Your task to perform on an android device: Go to Android settings Image 0: 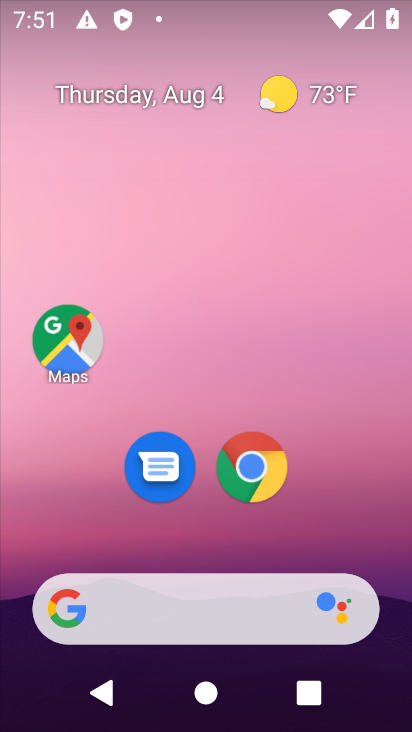
Step 0: drag from (300, 528) to (338, 38)
Your task to perform on an android device: Go to Android settings Image 1: 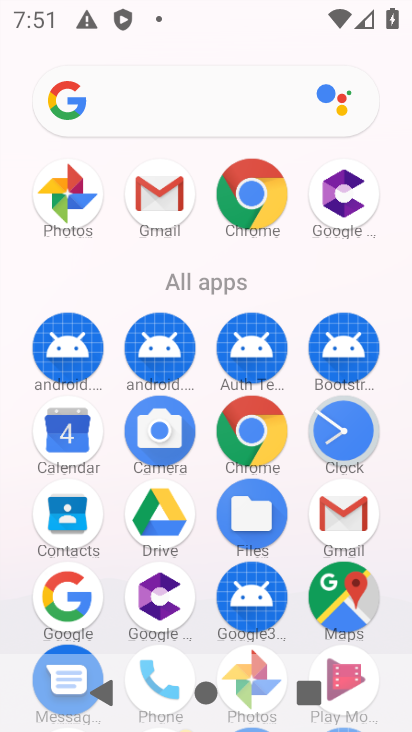
Step 1: drag from (190, 487) to (126, 56)
Your task to perform on an android device: Go to Android settings Image 2: 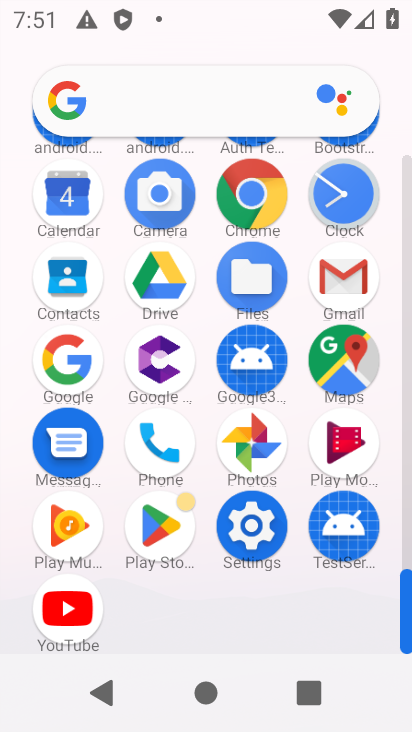
Step 2: click (250, 533)
Your task to perform on an android device: Go to Android settings Image 3: 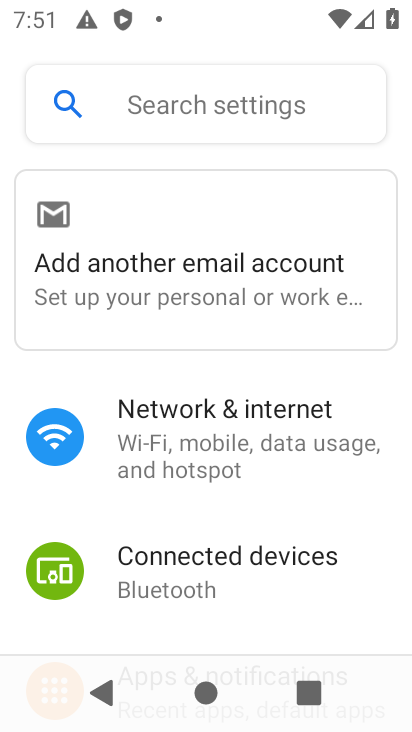
Step 3: drag from (239, 594) to (260, 153)
Your task to perform on an android device: Go to Android settings Image 4: 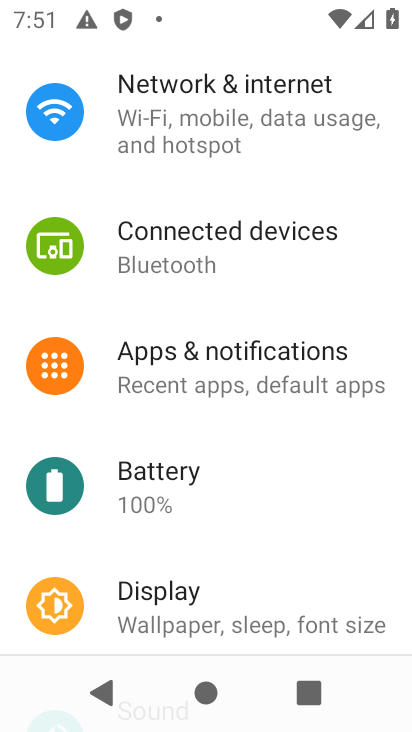
Step 4: drag from (242, 479) to (263, 58)
Your task to perform on an android device: Go to Android settings Image 5: 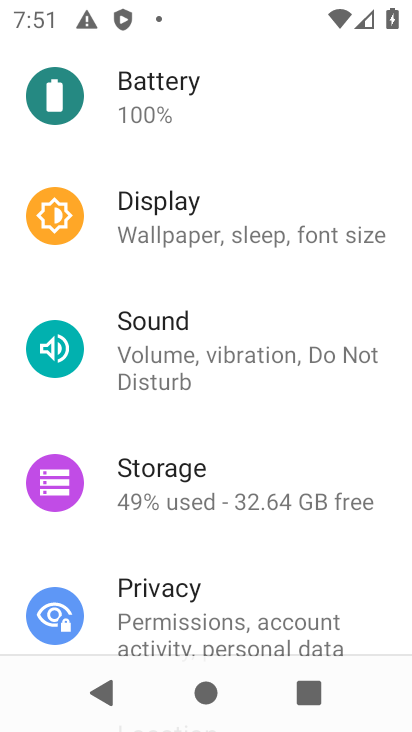
Step 5: drag from (181, 609) to (262, 25)
Your task to perform on an android device: Go to Android settings Image 6: 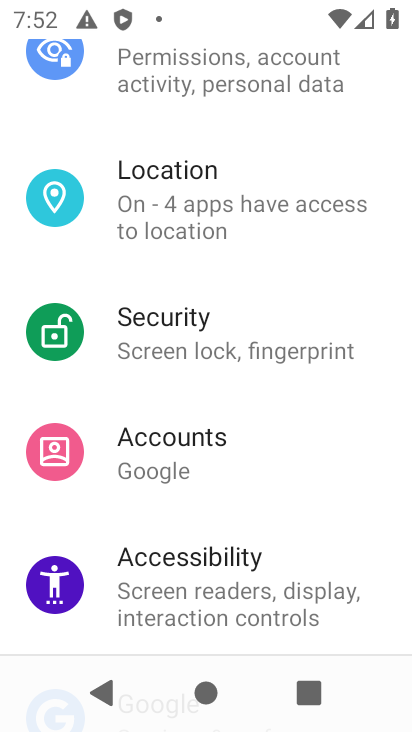
Step 6: drag from (257, 571) to (268, 17)
Your task to perform on an android device: Go to Android settings Image 7: 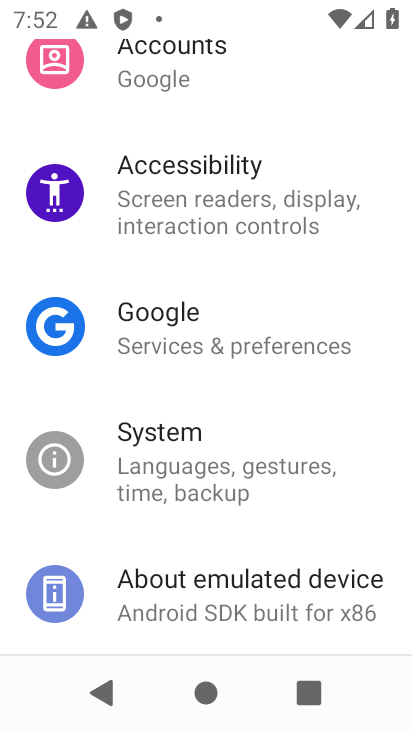
Step 7: click (208, 596)
Your task to perform on an android device: Go to Android settings Image 8: 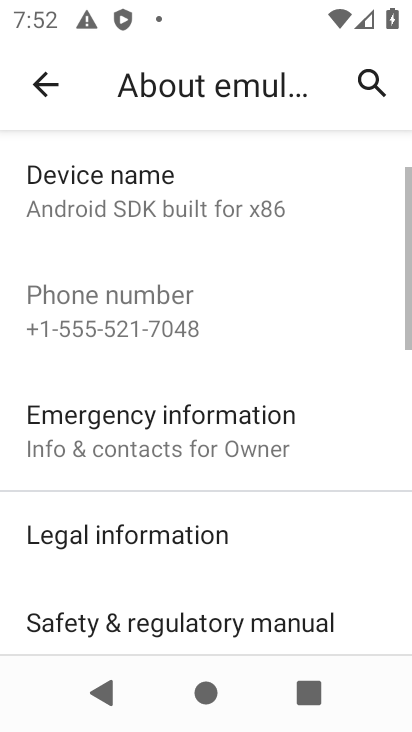
Step 8: drag from (246, 564) to (249, 165)
Your task to perform on an android device: Go to Android settings Image 9: 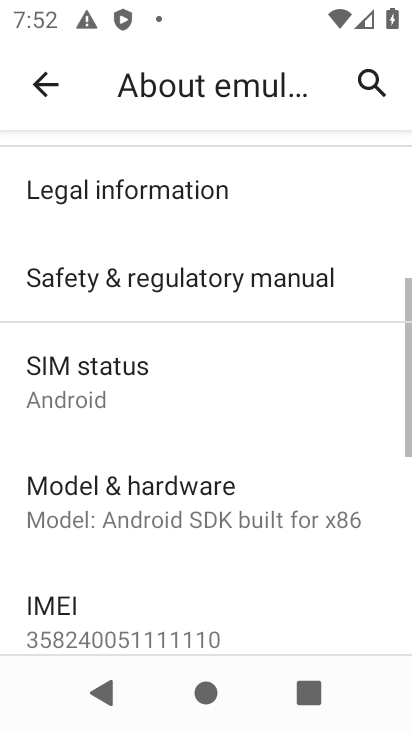
Step 9: drag from (166, 575) to (176, 197)
Your task to perform on an android device: Go to Android settings Image 10: 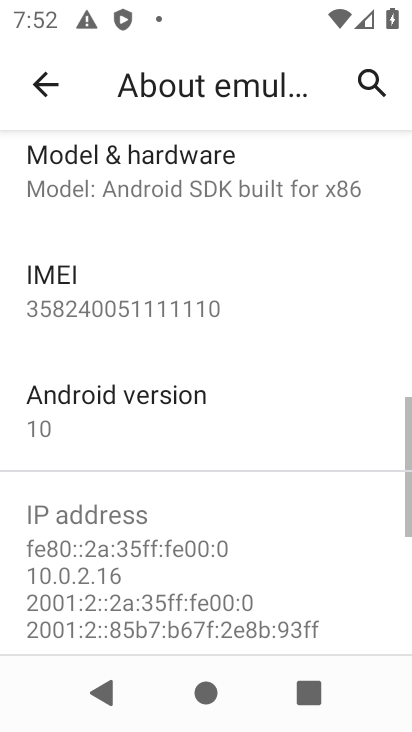
Step 10: click (92, 399)
Your task to perform on an android device: Go to Android settings Image 11: 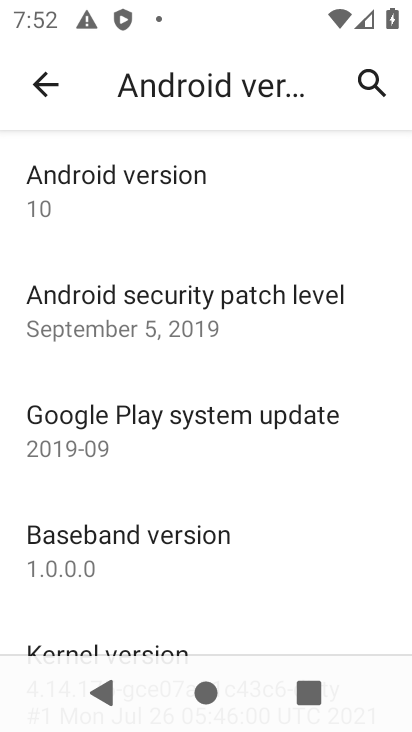
Step 11: task complete